Your task to perform on an android device: Do I have any events this weekend? Image 0: 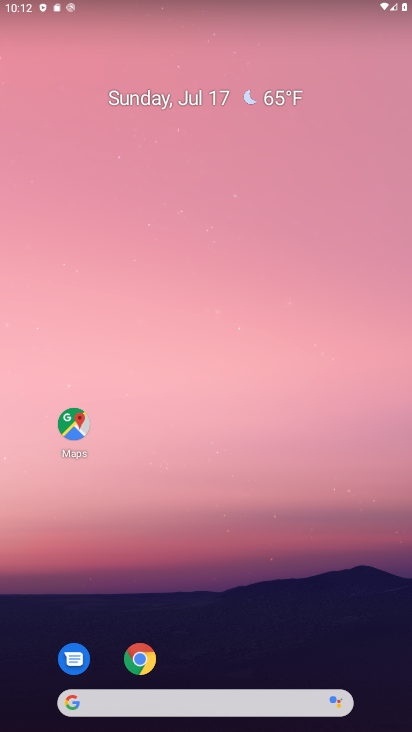
Step 0: drag from (179, 666) to (205, 307)
Your task to perform on an android device: Do I have any events this weekend? Image 1: 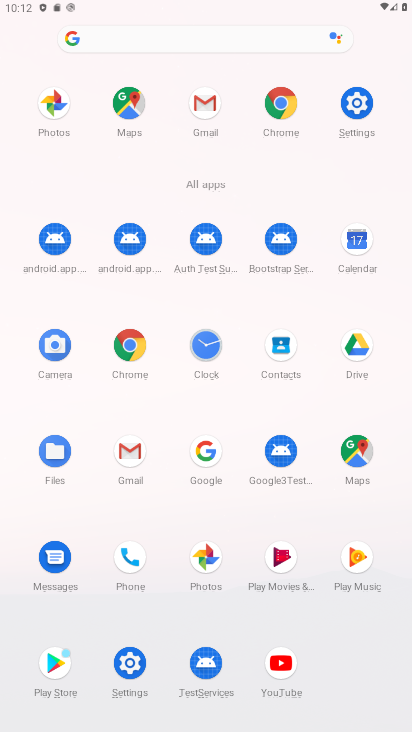
Step 1: click (353, 261)
Your task to perform on an android device: Do I have any events this weekend? Image 2: 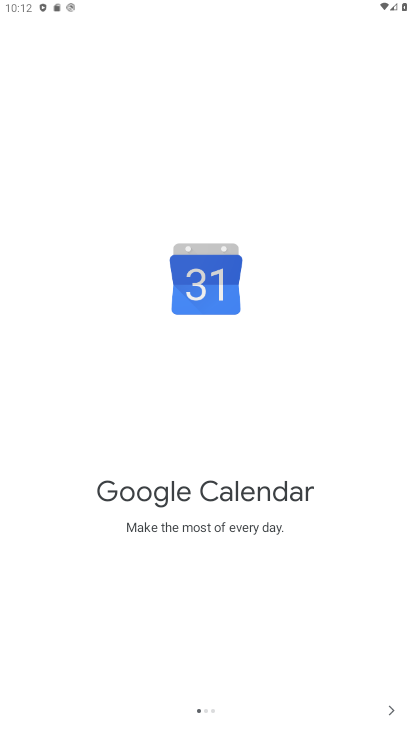
Step 2: click (392, 710)
Your task to perform on an android device: Do I have any events this weekend? Image 3: 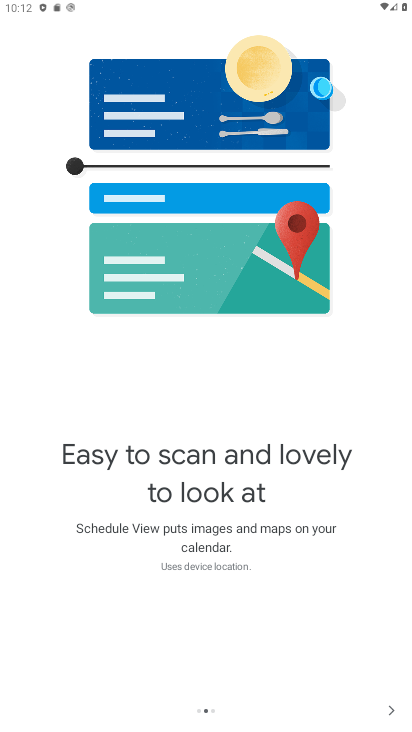
Step 3: click (388, 712)
Your task to perform on an android device: Do I have any events this weekend? Image 4: 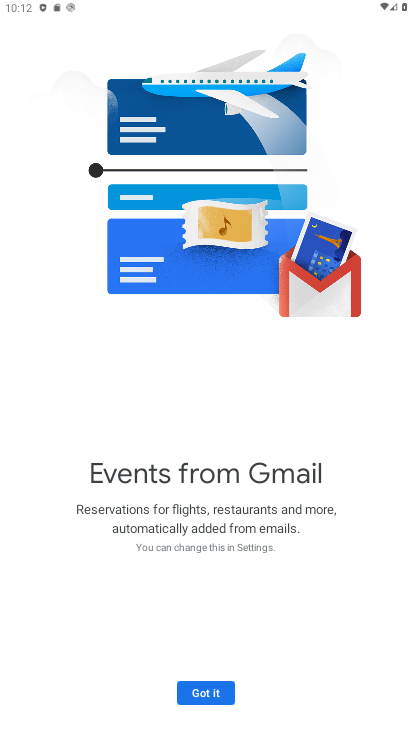
Step 4: click (200, 697)
Your task to perform on an android device: Do I have any events this weekend? Image 5: 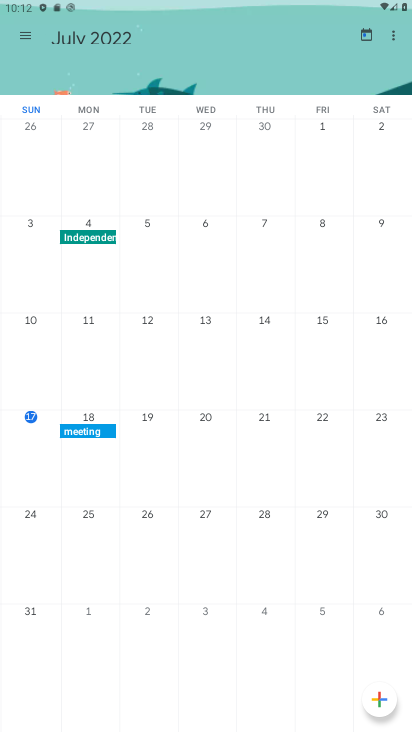
Step 5: click (27, 34)
Your task to perform on an android device: Do I have any events this weekend? Image 6: 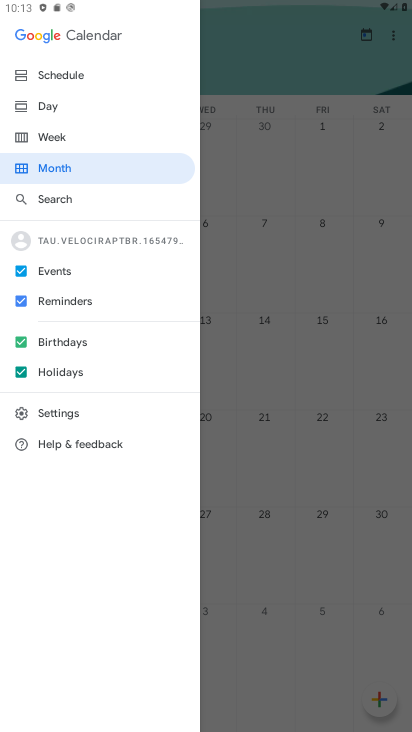
Step 6: click (61, 135)
Your task to perform on an android device: Do I have any events this weekend? Image 7: 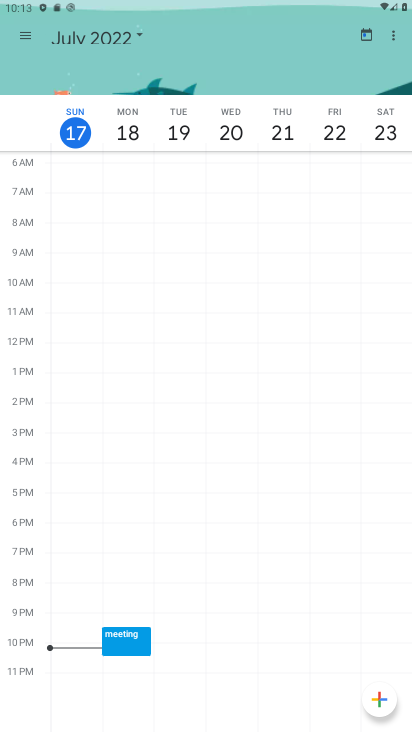
Step 7: task complete